Your task to perform on an android device: What's on my calendar today? Image 0: 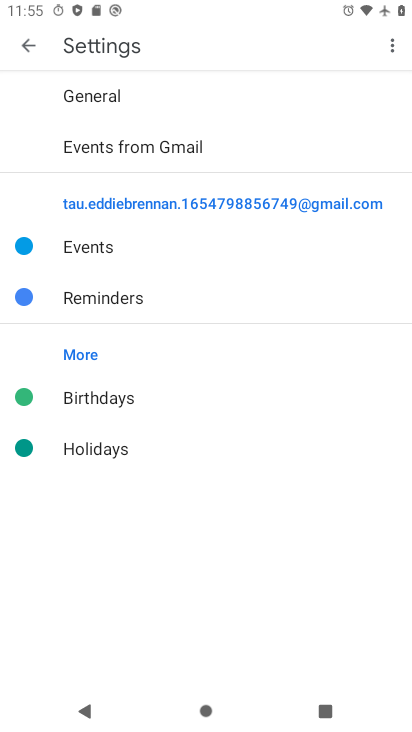
Step 0: press home button
Your task to perform on an android device: What's on my calendar today? Image 1: 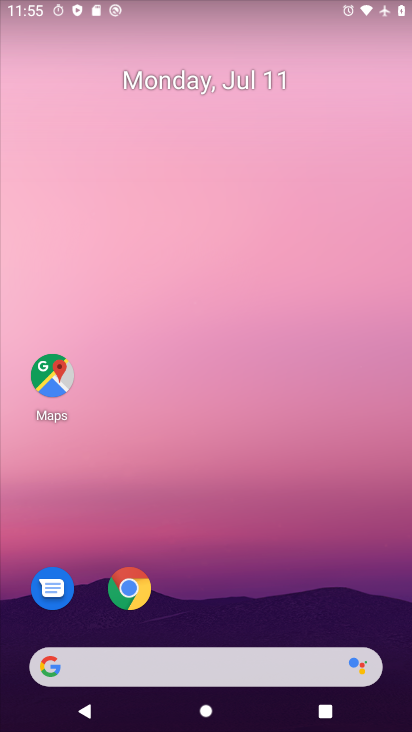
Step 1: drag from (213, 667) to (364, 101)
Your task to perform on an android device: What's on my calendar today? Image 2: 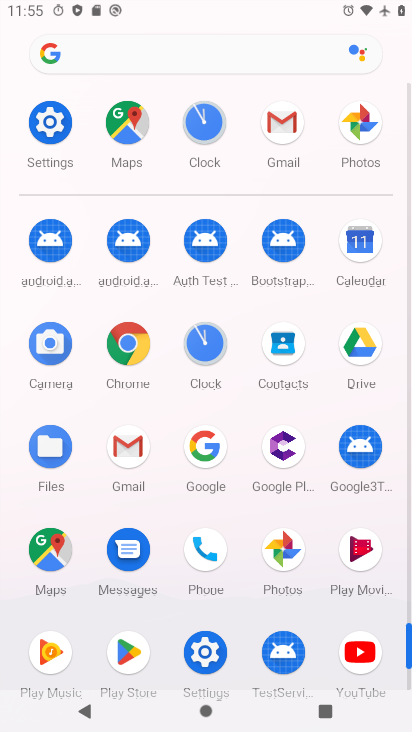
Step 2: click (367, 247)
Your task to perform on an android device: What's on my calendar today? Image 3: 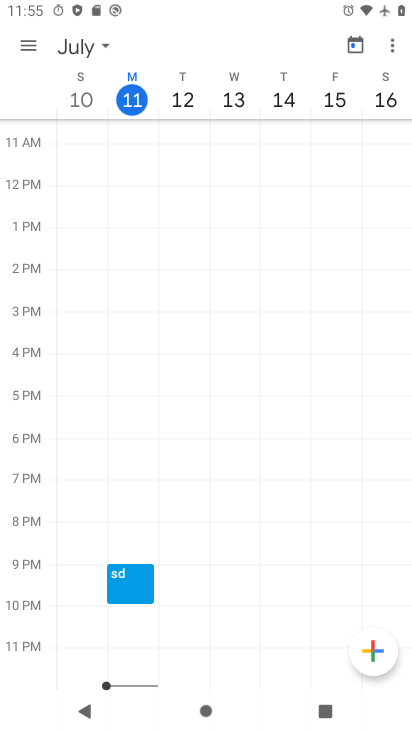
Step 3: click (84, 46)
Your task to perform on an android device: What's on my calendar today? Image 4: 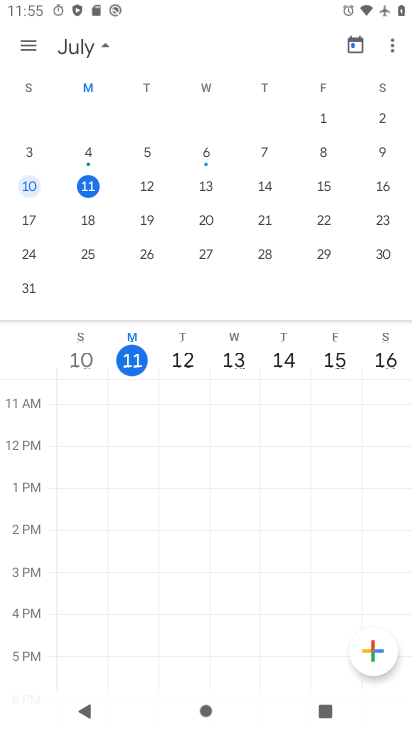
Step 4: click (89, 189)
Your task to perform on an android device: What's on my calendar today? Image 5: 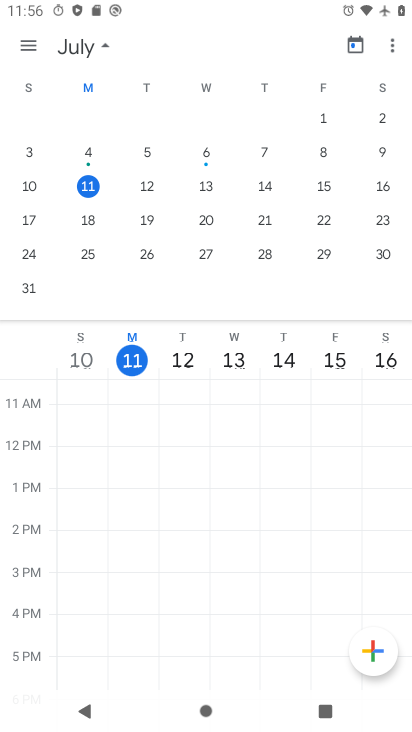
Step 5: click (24, 43)
Your task to perform on an android device: What's on my calendar today? Image 6: 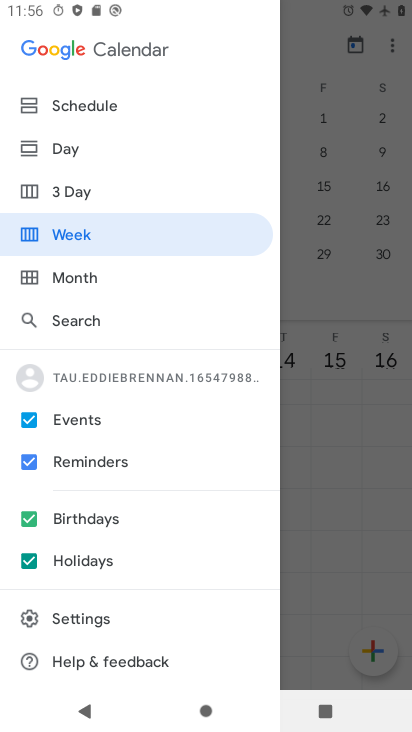
Step 6: click (78, 150)
Your task to perform on an android device: What's on my calendar today? Image 7: 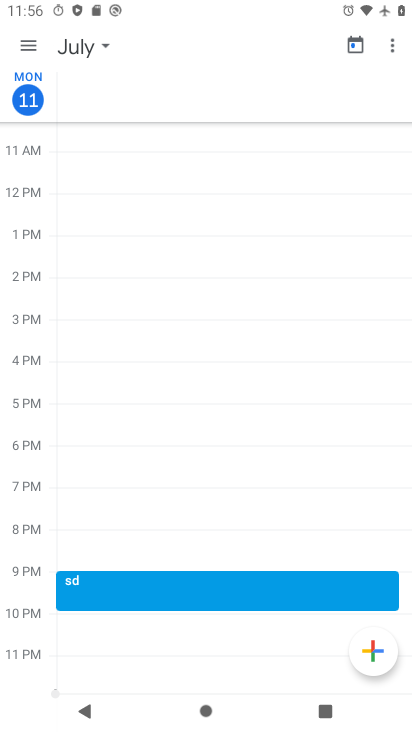
Step 7: click (33, 38)
Your task to perform on an android device: What's on my calendar today? Image 8: 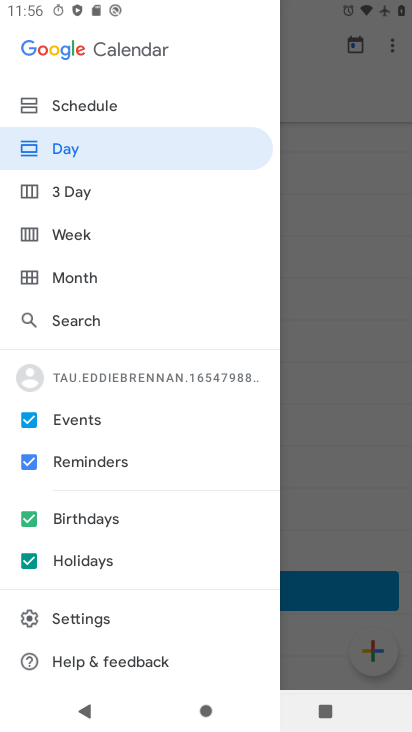
Step 8: click (135, 109)
Your task to perform on an android device: What's on my calendar today? Image 9: 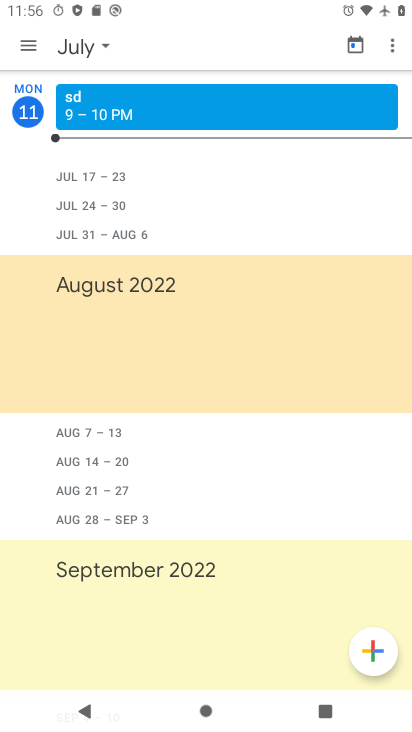
Step 9: task complete